Your task to perform on an android device: turn pop-ups off in chrome Image 0: 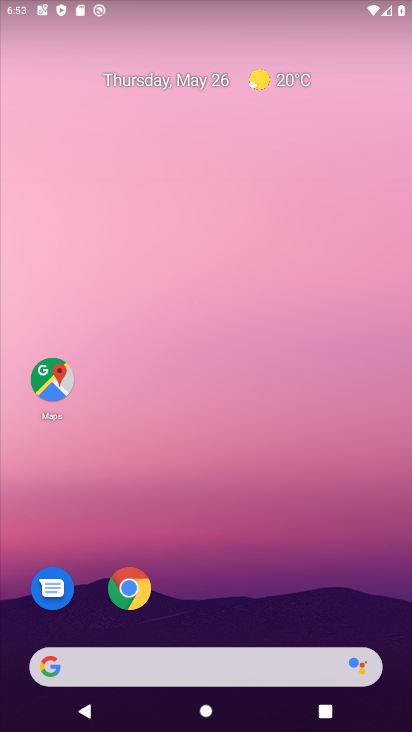
Step 0: drag from (327, 642) to (222, 28)
Your task to perform on an android device: turn pop-ups off in chrome Image 1: 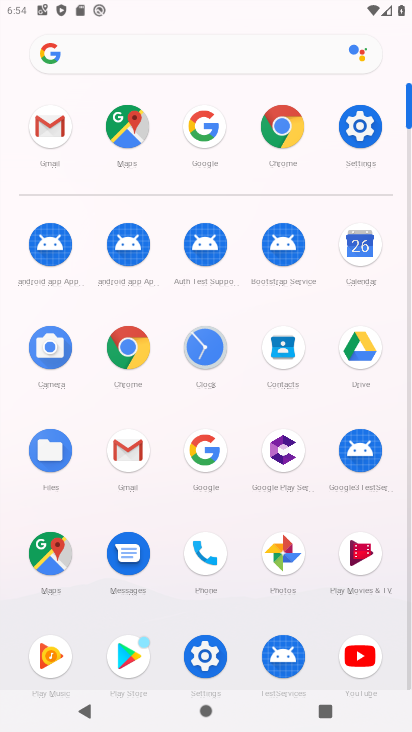
Step 1: click (282, 114)
Your task to perform on an android device: turn pop-ups off in chrome Image 2: 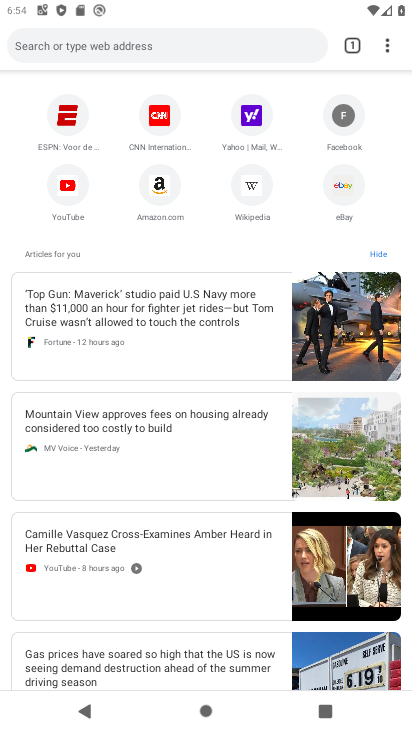
Step 2: click (388, 43)
Your task to perform on an android device: turn pop-ups off in chrome Image 3: 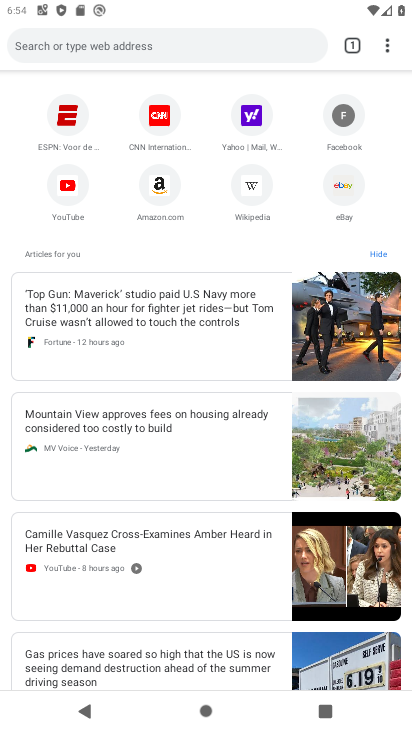
Step 3: click (392, 31)
Your task to perform on an android device: turn pop-ups off in chrome Image 4: 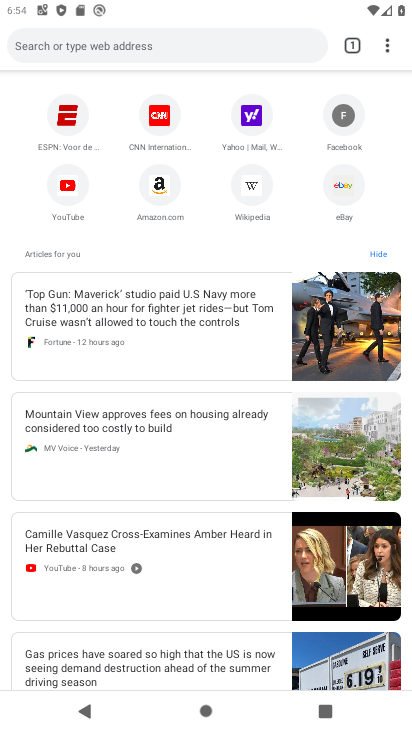
Step 4: click (384, 45)
Your task to perform on an android device: turn pop-ups off in chrome Image 5: 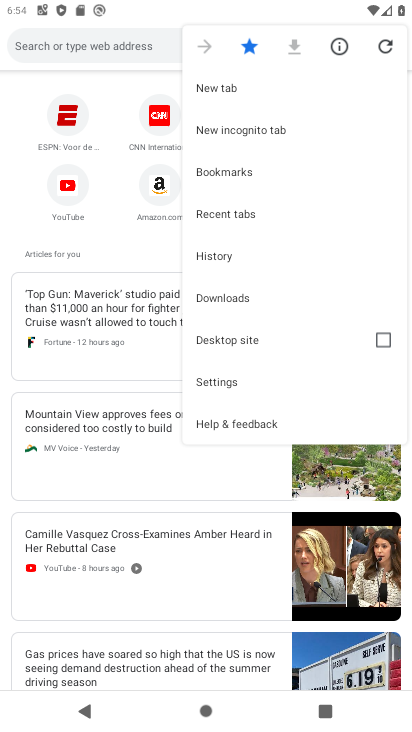
Step 5: click (243, 382)
Your task to perform on an android device: turn pop-ups off in chrome Image 6: 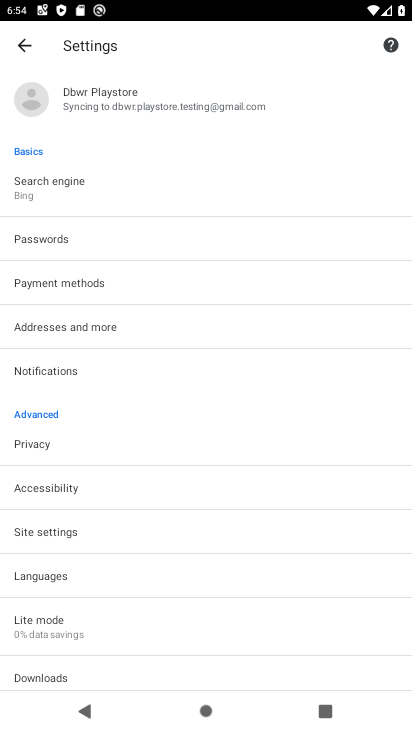
Step 6: click (60, 540)
Your task to perform on an android device: turn pop-ups off in chrome Image 7: 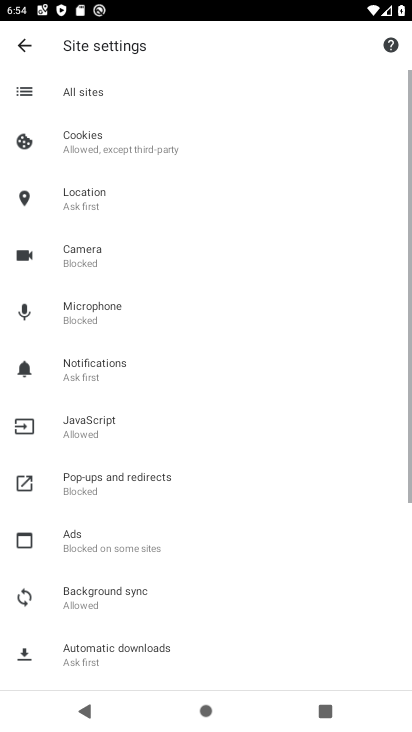
Step 7: click (96, 483)
Your task to perform on an android device: turn pop-ups off in chrome Image 8: 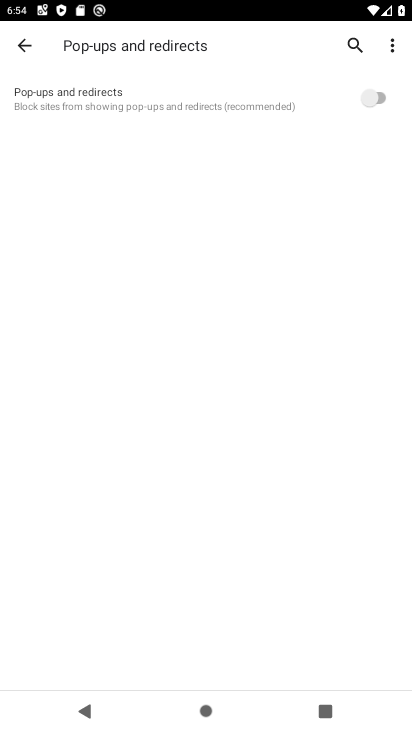
Step 8: task complete